Your task to perform on an android device: open app "Facebook" (install if not already installed), go to login, and select forgot password Image 0: 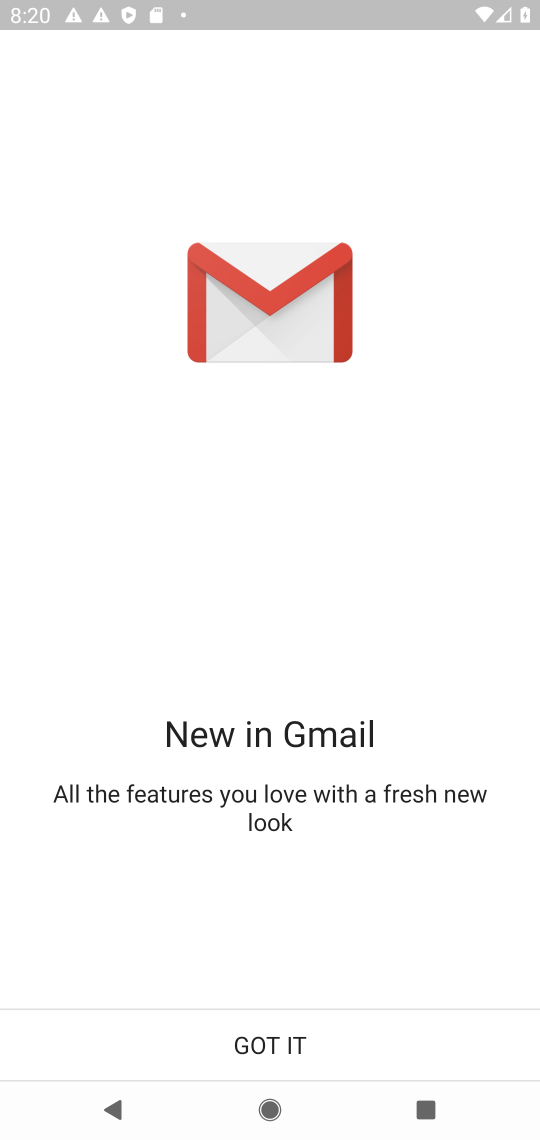
Step 0: press home button
Your task to perform on an android device: open app "Facebook" (install if not already installed), go to login, and select forgot password Image 1: 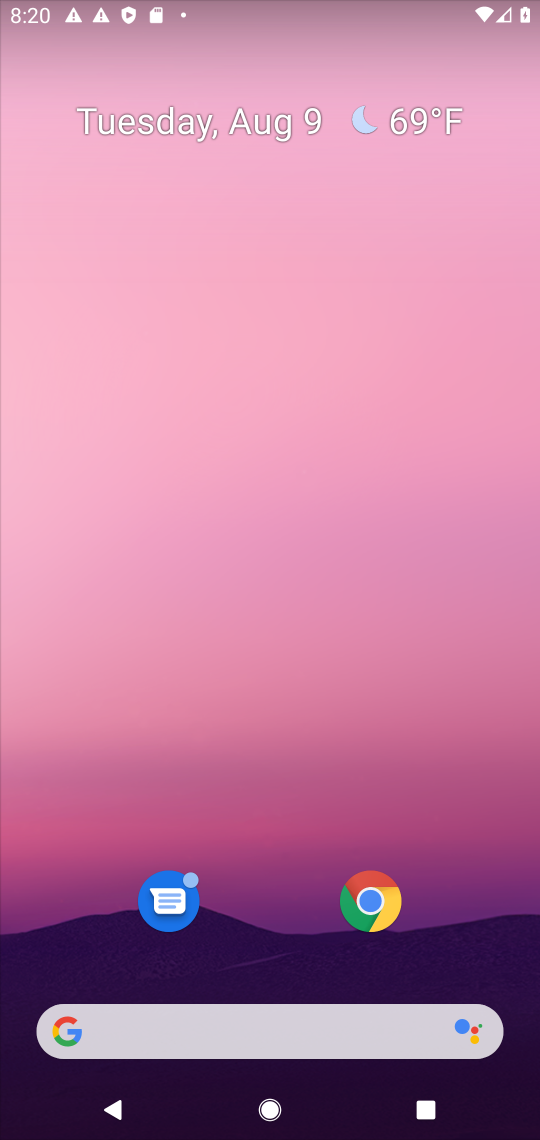
Step 1: drag from (299, 1010) to (308, 151)
Your task to perform on an android device: open app "Facebook" (install if not already installed), go to login, and select forgot password Image 2: 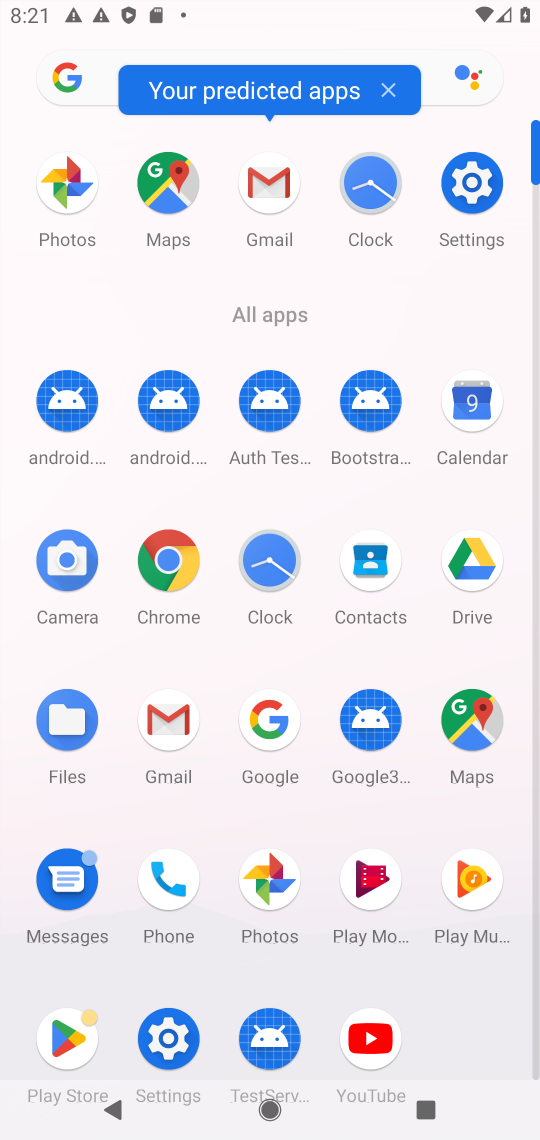
Step 2: drag from (324, 823) to (330, 228)
Your task to perform on an android device: open app "Facebook" (install if not already installed), go to login, and select forgot password Image 3: 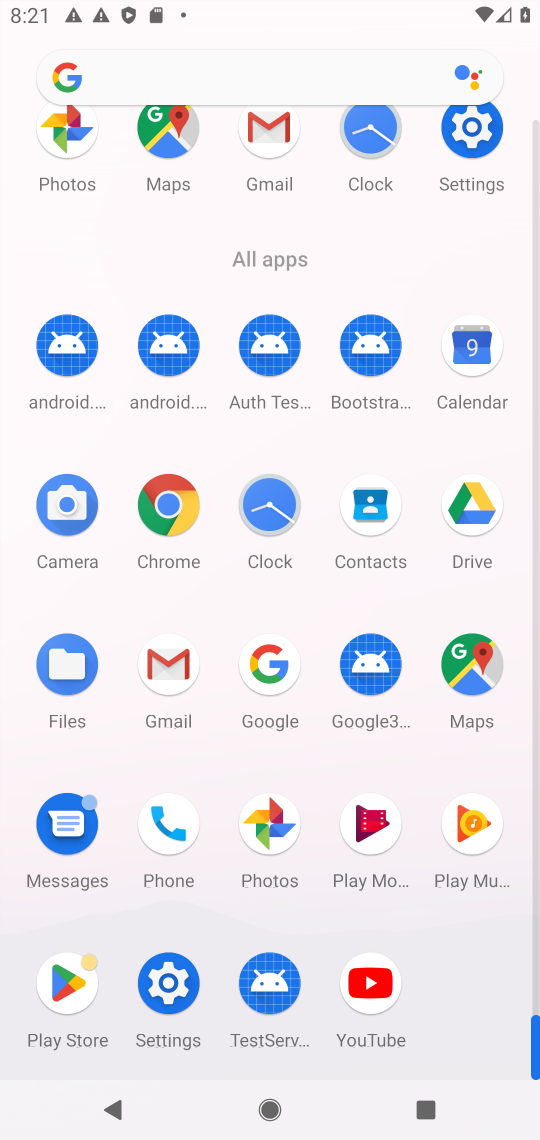
Step 3: click (58, 973)
Your task to perform on an android device: open app "Facebook" (install if not already installed), go to login, and select forgot password Image 4: 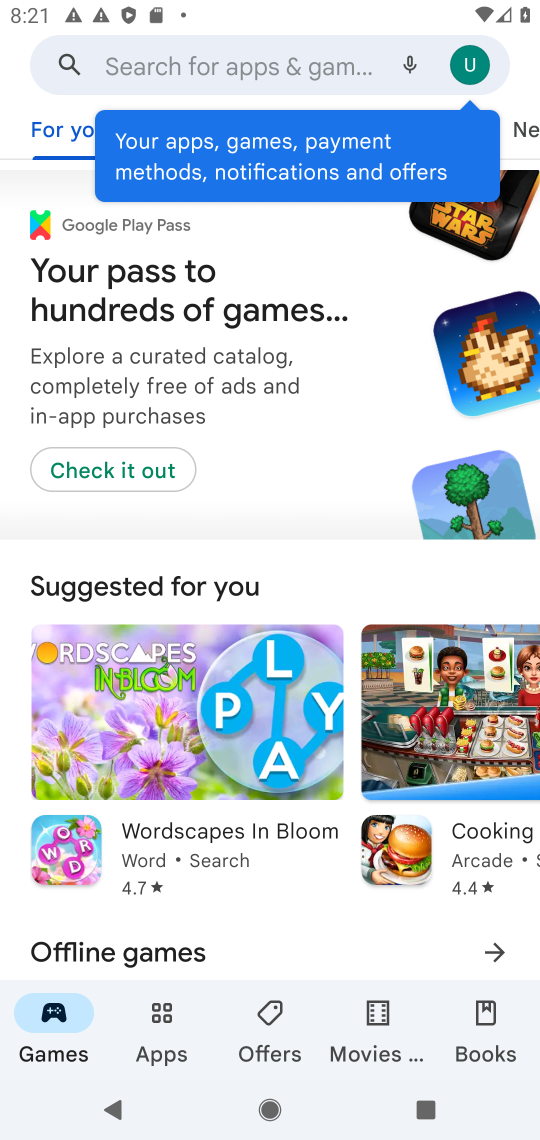
Step 4: click (155, 1003)
Your task to perform on an android device: open app "Facebook" (install if not already installed), go to login, and select forgot password Image 5: 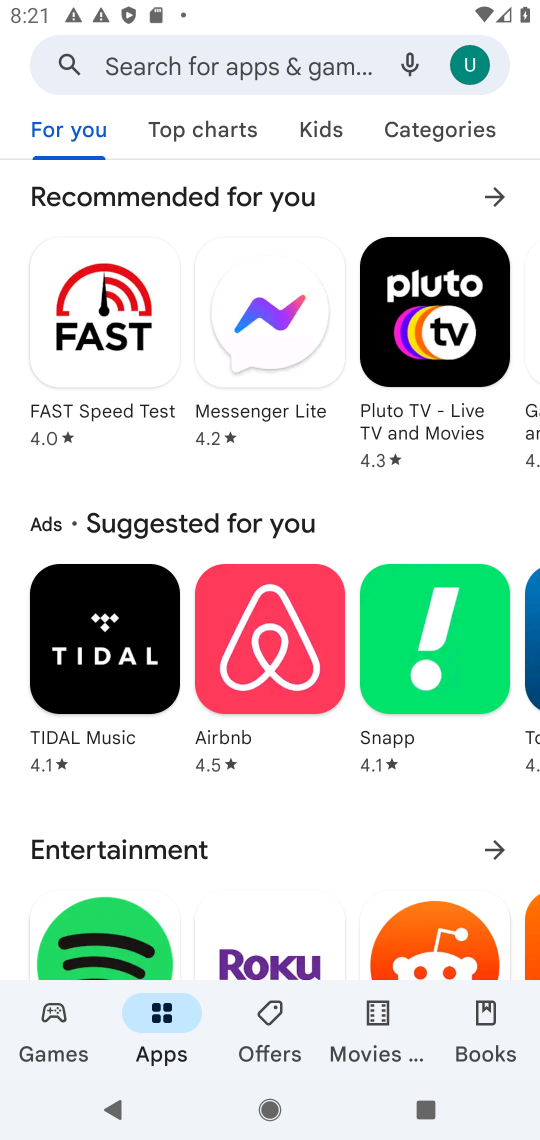
Step 5: click (229, 52)
Your task to perform on an android device: open app "Facebook" (install if not already installed), go to login, and select forgot password Image 6: 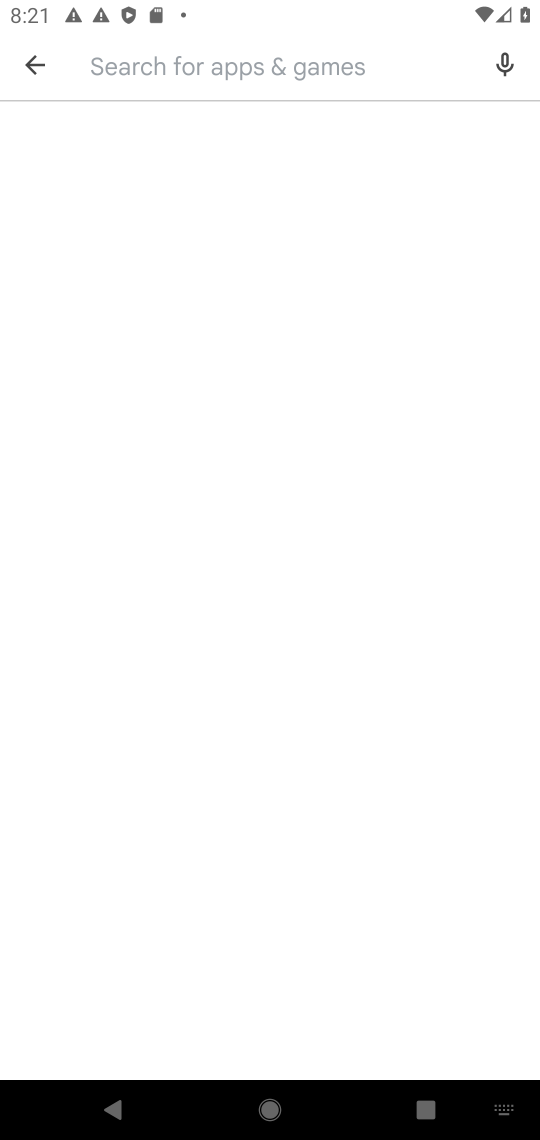
Step 6: type "facebook"
Your task to perform on an android device: open app "Facebook" (install if not already installed), go to login, and select forgot password Image 7: 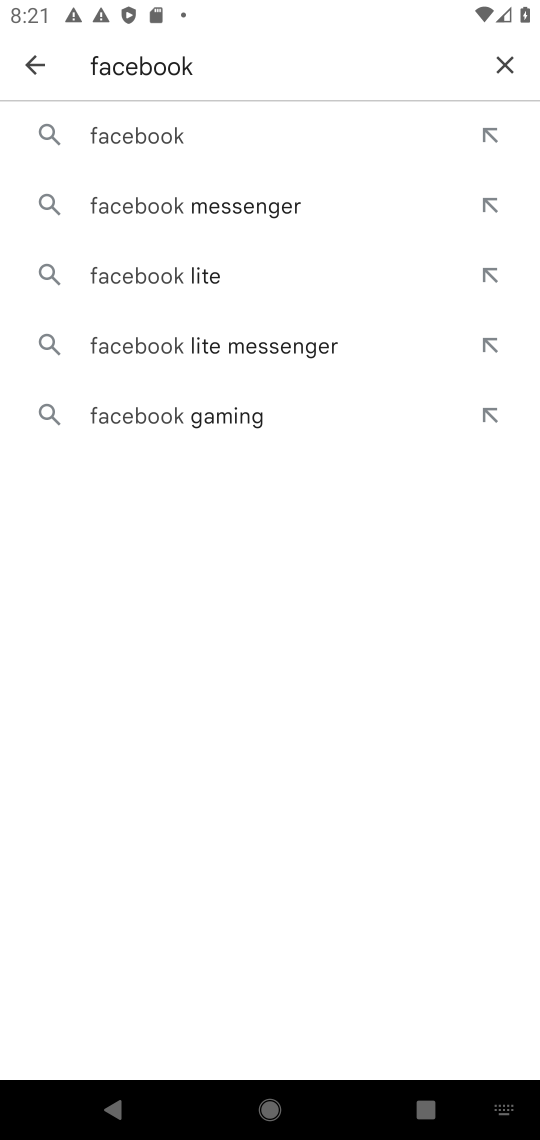
Step 7: click (183, 148)
Your task to perform on an android device: open app "Facebook" (install if not already installed), go to login, and select forgot password Image 8: 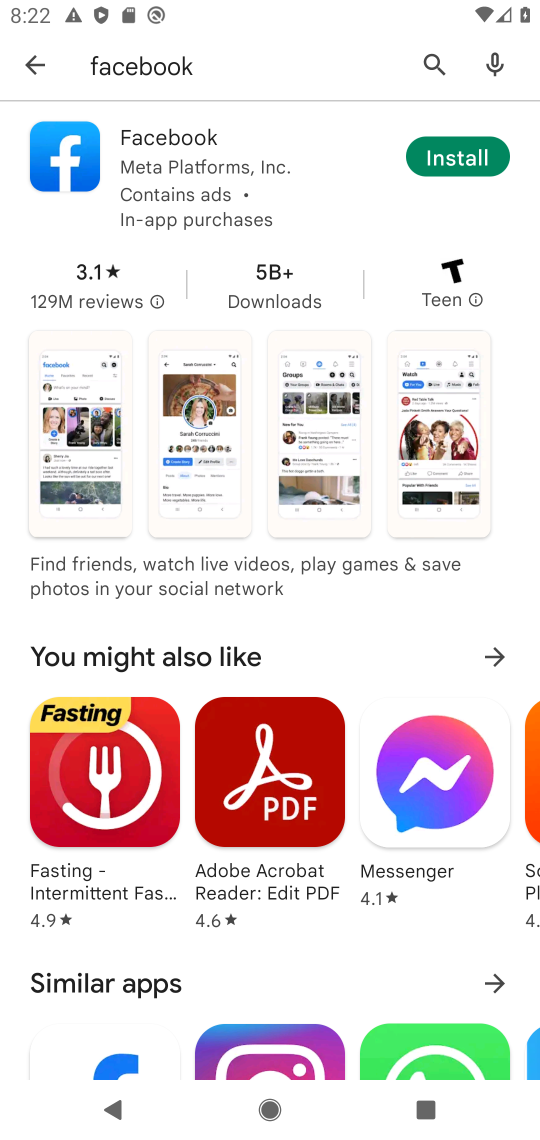
Step 8: click (447, 152)
Your task to perform on an android device: open app "Facebook" (install if not already installed), go to login, and select forgot password Image 9: 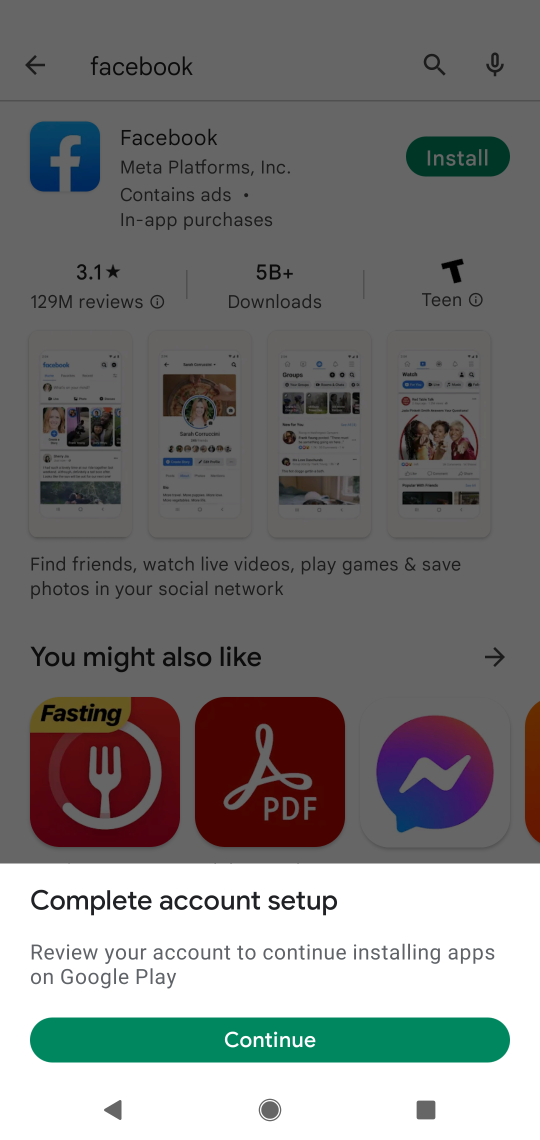
Step 9: click (300, 1024)
Your task to perform on an android device: open app "Facebook" (install if not already installed), go to login, and select forgot password Image 10: 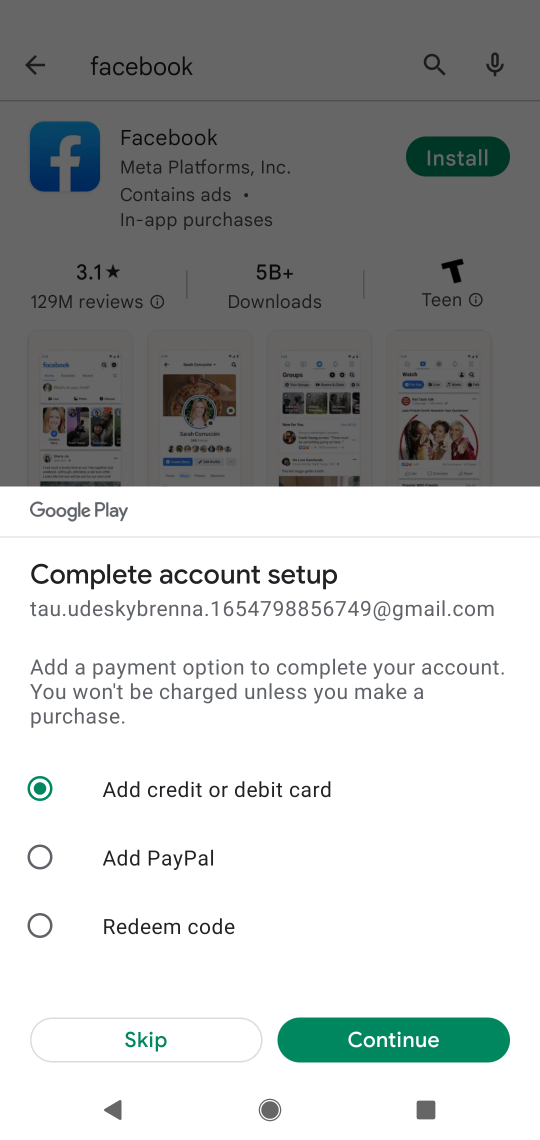
Step 10: click (352, 1030)
Your task to perform on an android device: open app "Facebook" (install if not already installed), go to login, and select forgot password Image 11: 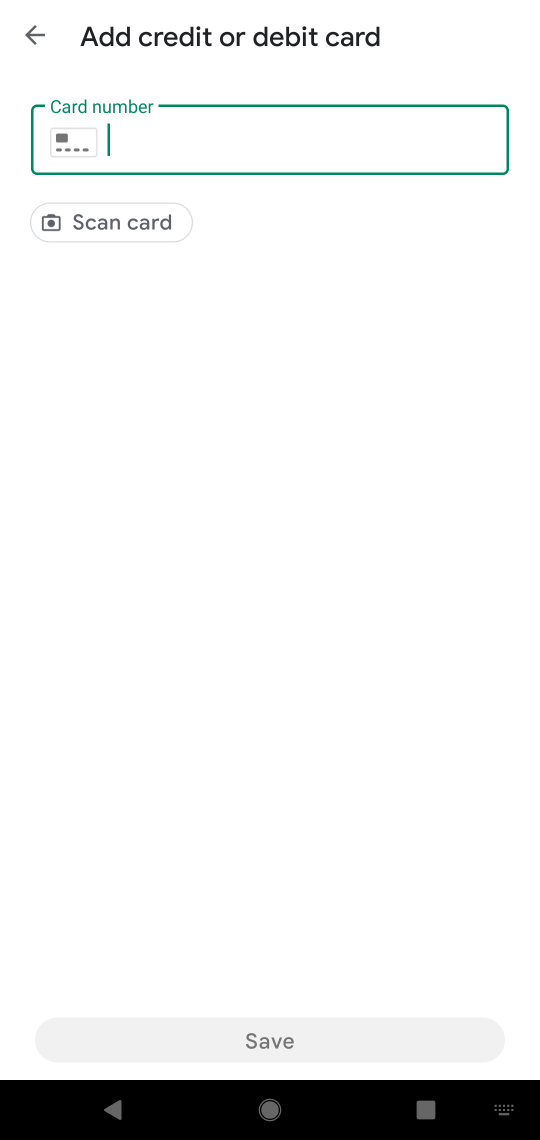
Step 11: task complete